Your task to perform on an android device: turn pop-ups on in chrome Image 0: 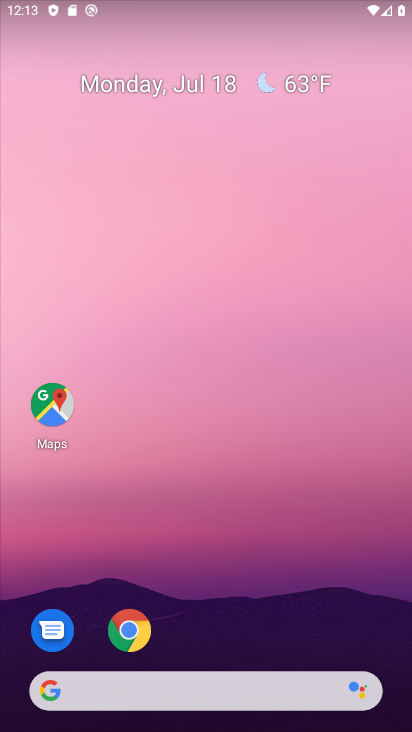
Step 0: click (142, 642)
Your task to perform on an android device: turn pop-ups on in chrome Image 1: 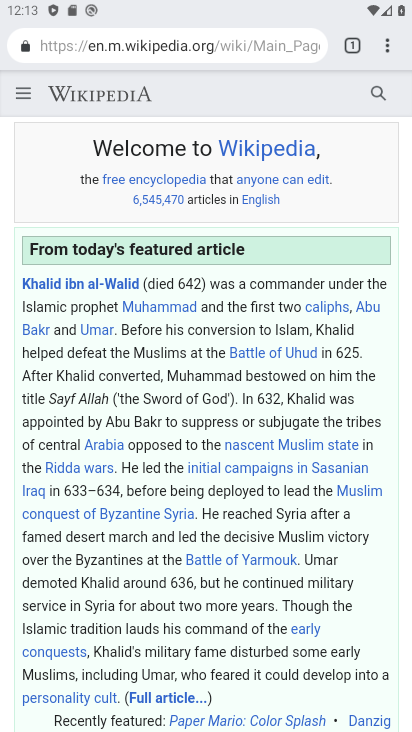
Step 1: drag from (386, 41) to (251, 545)
Your task to perform on an android device: turn pop-ups on in chrome Image 2: 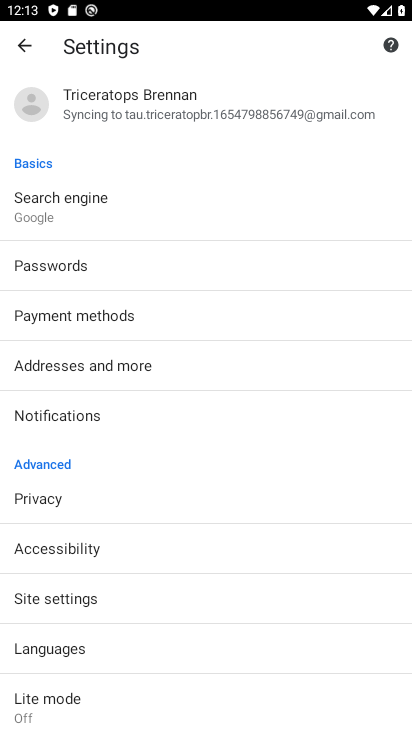
Step 2: click (65, 606)
Your task to perform on an android device: turn pop-ups on in chrome Image 3: 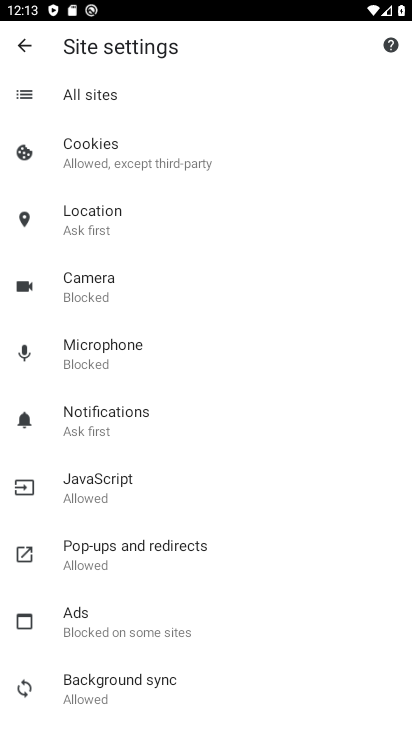
Step 3: click (99, 547)
Your task to perform on an android device: turn pop-ups on in chrome Image 4: 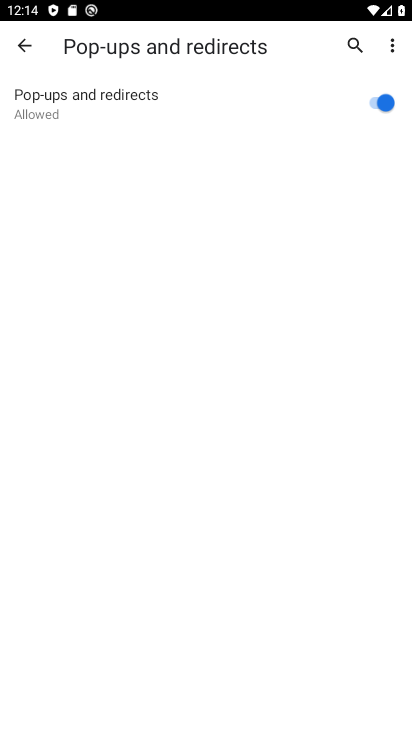
Step 4: task complete